Your task to perform on an android device: turn on location history Image 0: 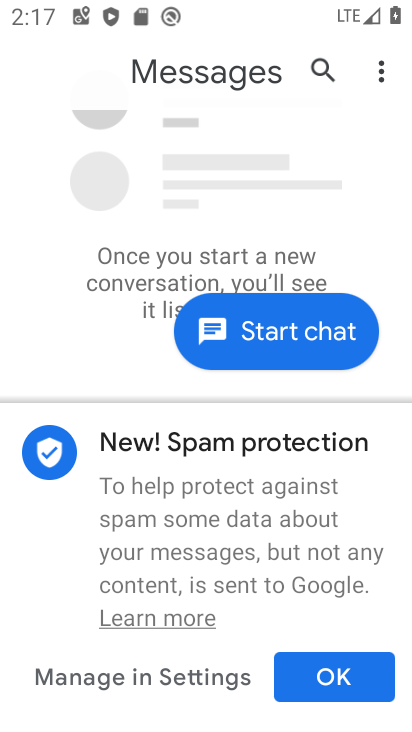
Step 0: press home button
Your task to perform on an android device: turn on location history Image 1: 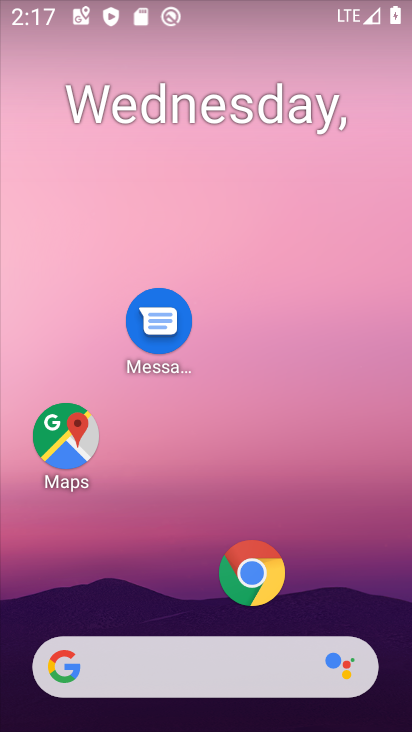
Step 1: drag from (177, 570) to (189, 99)
Your task to perform on an android device: turn on location history Image 2: 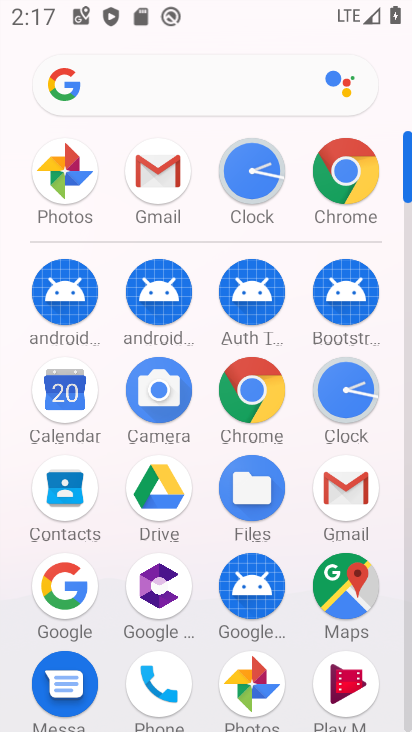
Step 2: drag from (200, 631) to (218, 151)
Your task to perform on an android device: turn on location history Image 3: 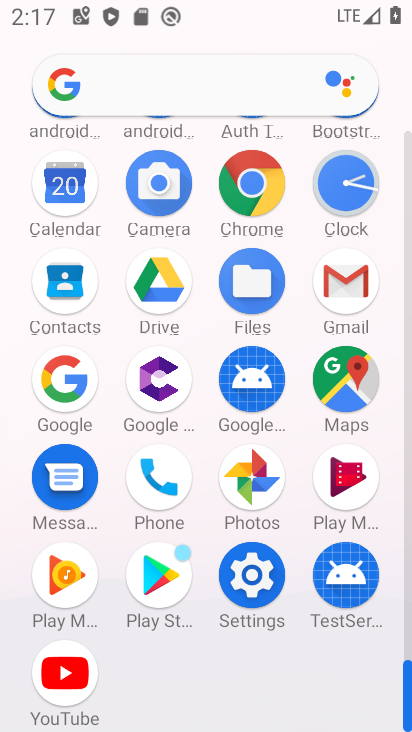
Step 3: click (251, 574)
Your task to perform on an android device: turn on location history Image 4: 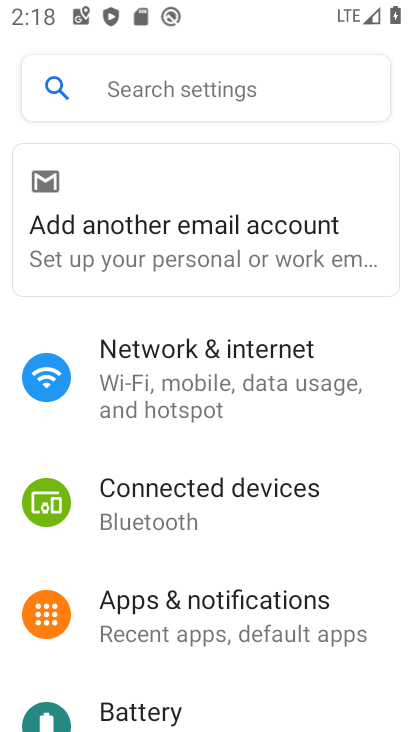
Step 4: drag from (227, 668) to (176, 190)
Your task to perform on an android device: turn on location history Image 5: 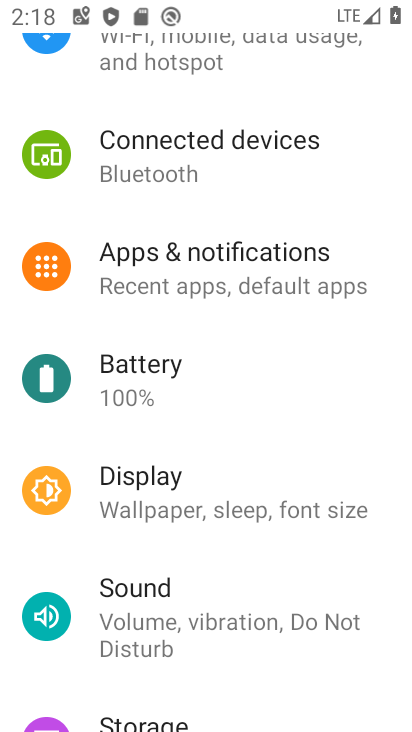
Step 5: drag from (185, 629) to (204, 232)
Your task to perform on an android device: turn on location history Image 6: 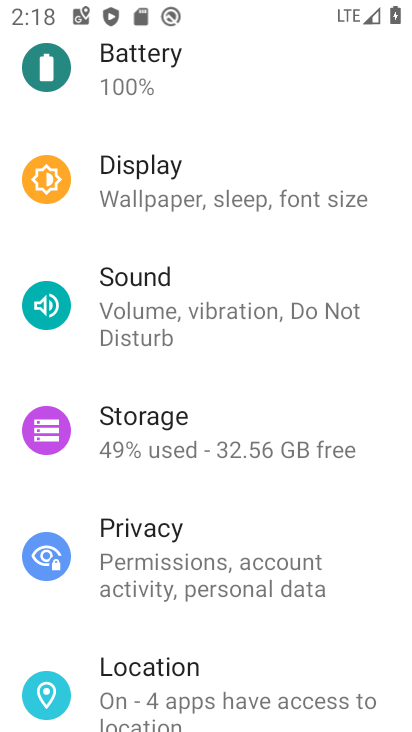
Step 6: click (147, 685)
Your task to perform on an android device: turn on location history Image 7: 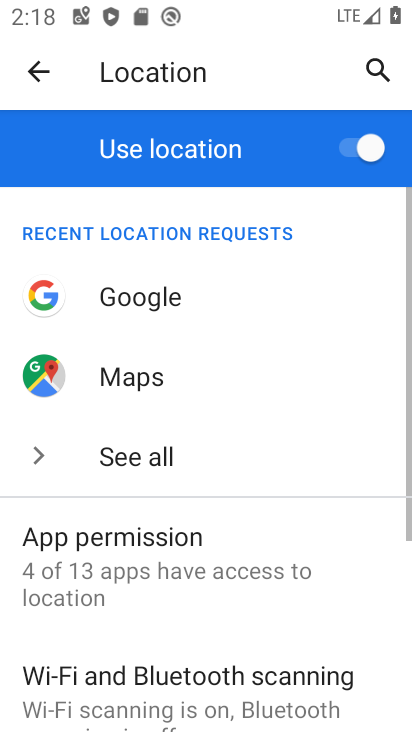
Step 7: drag from (260, 527) to (281, 192)
Your task to perform on an android device: turn on location history Image 8: 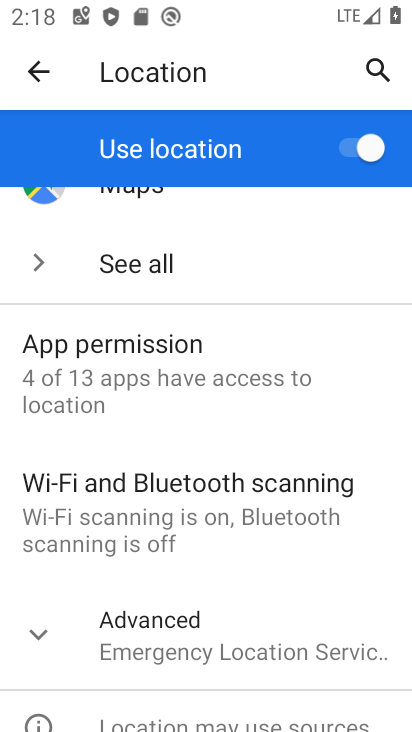
Step 8: click (215, 644)
Your task to perform on an android device: turn on location history Image 9: 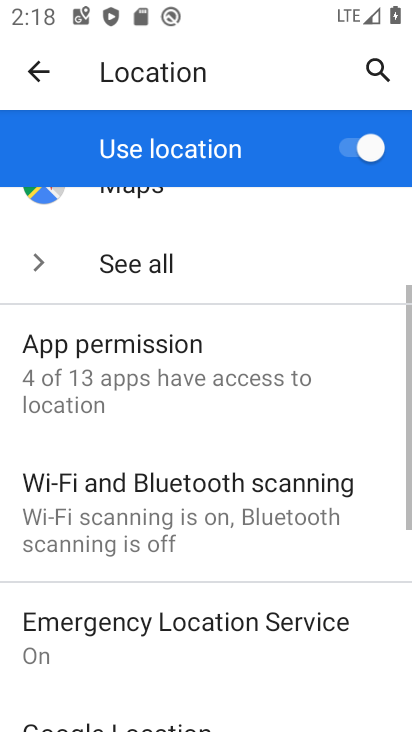
Step 9: drag from (234, 540) to (303, 356)
Your task to perform on an android device: turn on location history Image 10: 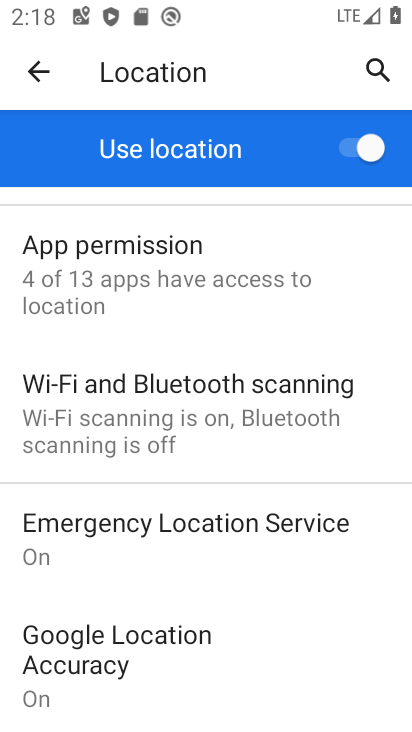
Step 10: drag from (228, 638) to (256, 334)
Your task to perform on an android device: turn on location history Image 11: 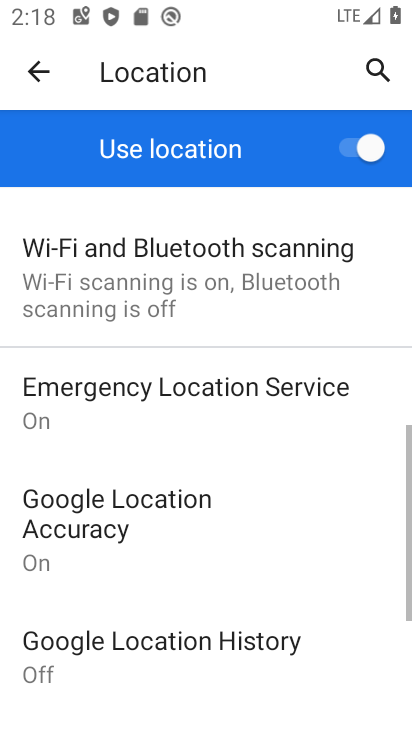
Step 11: click (91, 664)
Your task to perform on an android device: turn on location history Image 12: 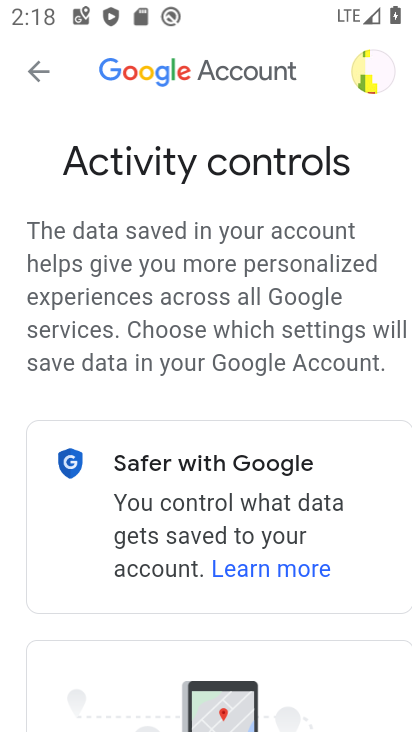
Step 12: drag from (316, 631) to (257, 30)
Your task to perform on an android device: turn on location history Image 13: 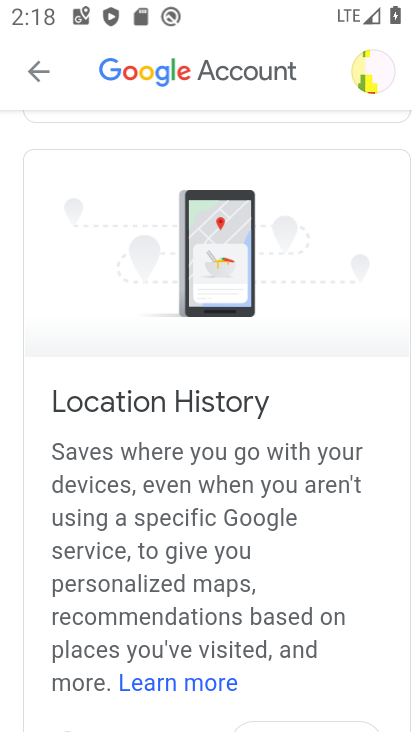
Step 13: drag from (269, 631) to (277, 154)
Your task to perform on an android device: turn on location history Image 14: 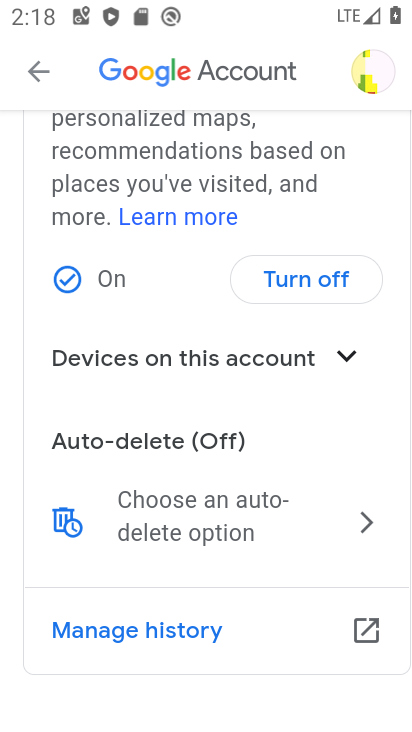
Step 14: click (314, 275)
Your task to perform on an android device: turn on location history Image 15: 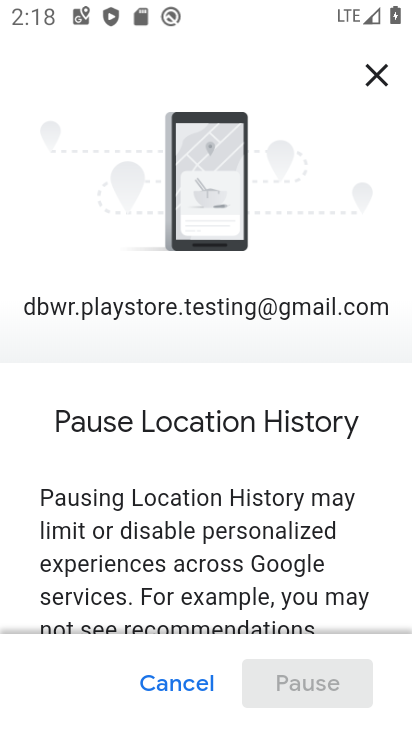
Step 15: drag from (317, 565) to (324, 87)
Your task to perform on an android device: turn on location history Image 16: 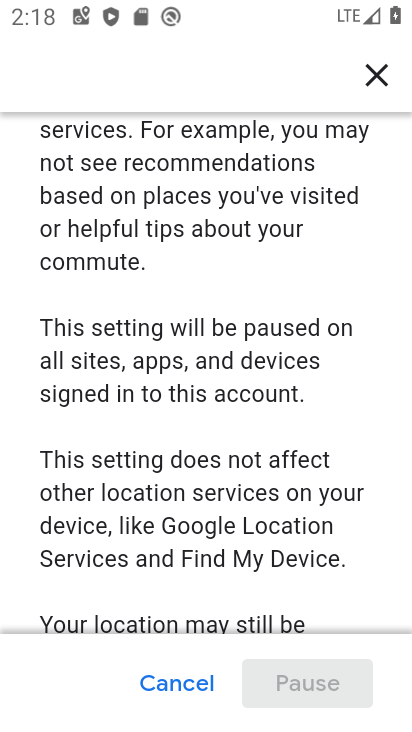
Step 16: drag from (287, 544) to (275, 76)
Your task to perform on an android device: turn on location history Image 17: 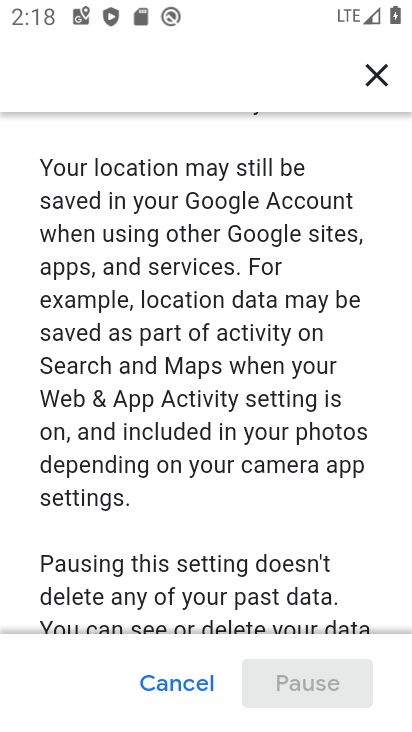
Step 17: drag from (265, 588) to (294, 150)
Your task to perform on an android device: turn on location history Image 18: 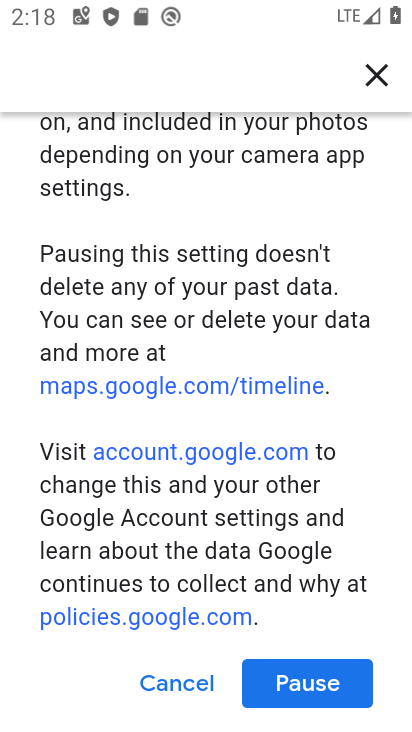
Step 18: click (311, 676)
Your task to perform on an android device: turn on location history Image 19: 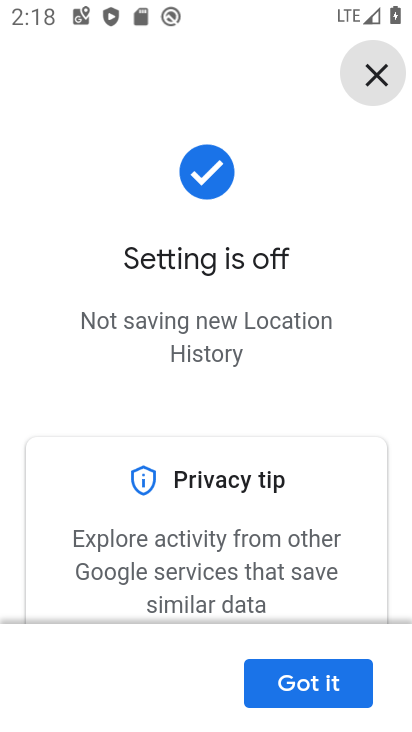
Step 19: click (309, 680)
Your task to perform on an android device: turn on location history Image 20: 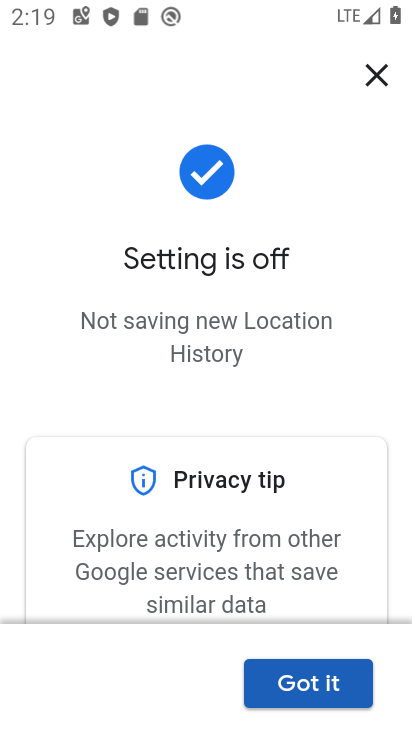
Step 20: task complete